Your task to perform on an android device: change alarm snooze length Image 0: 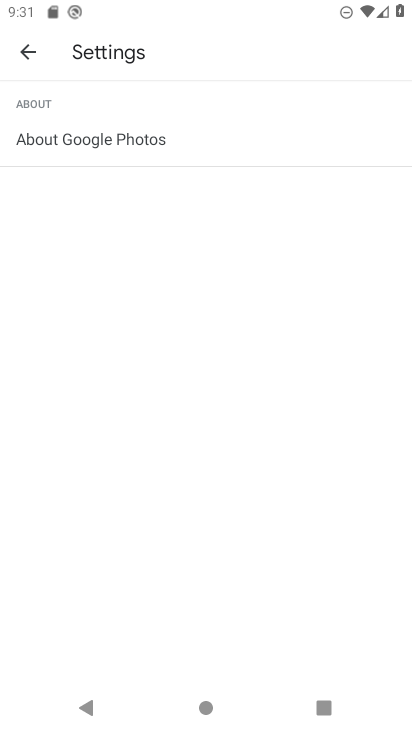
Step 0: press home button
Your task to perform on an android device: change alarm snooze length Image 1: 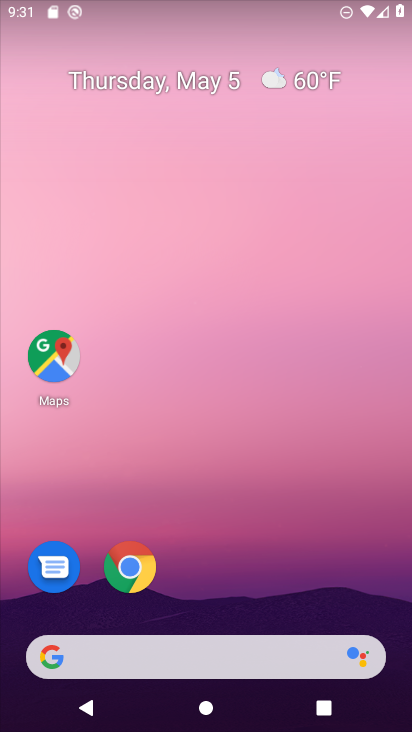
Step 1: drag from (220, 725) to (228, 73)
Your task to perform on an android device: change alarm snooze length Image 2: 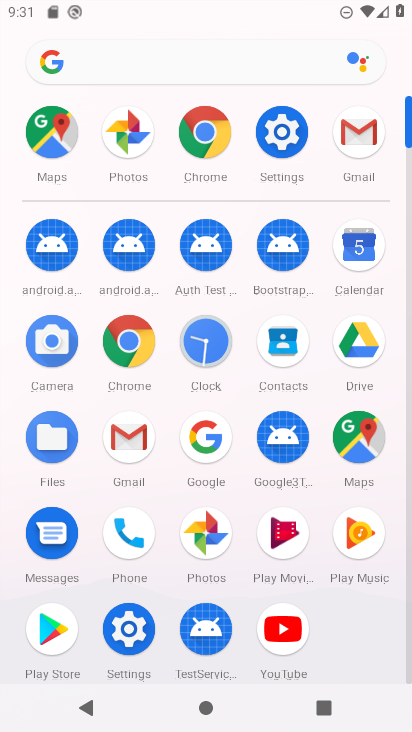
Step 2: click (200, 342)
Your task to perform on an android device: change alarm snooze length Image 3: 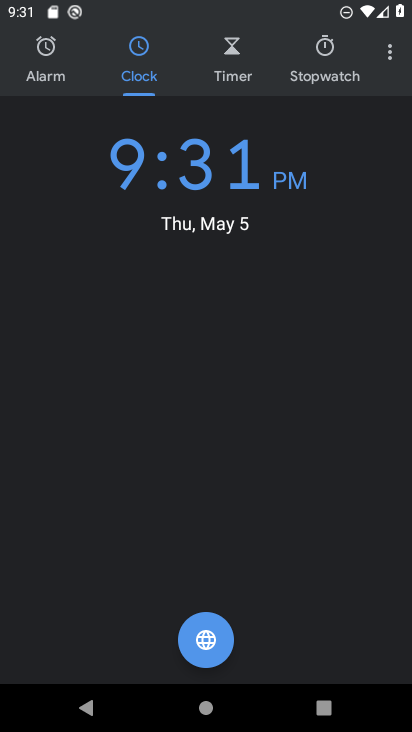
Step 3: click (388, 53)
Your task to perform on an android device: change alarm snooze length Image 4: 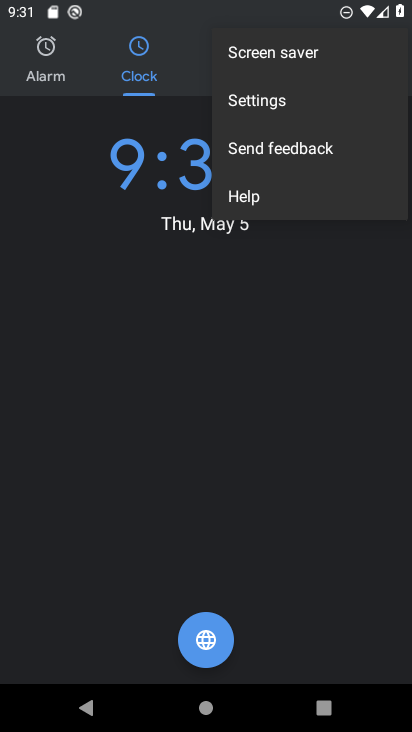
Step 4: click (265, 102)
Your task to perform on an android device: change alarm snooze length Image 5: 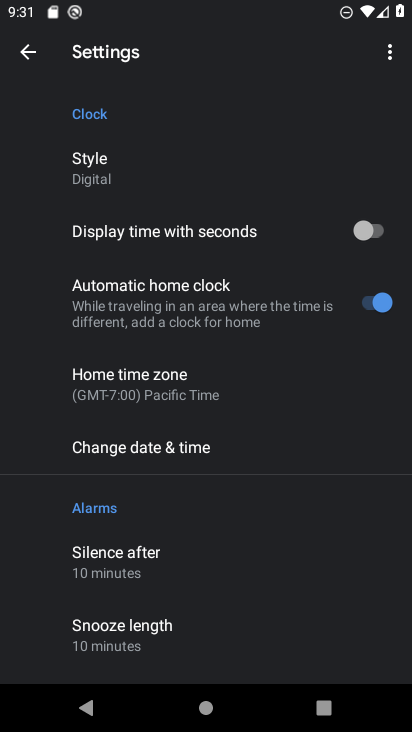
Step 5: click (102, 631)
Your task to perform on an android device: change alarm snooze length Image 6: 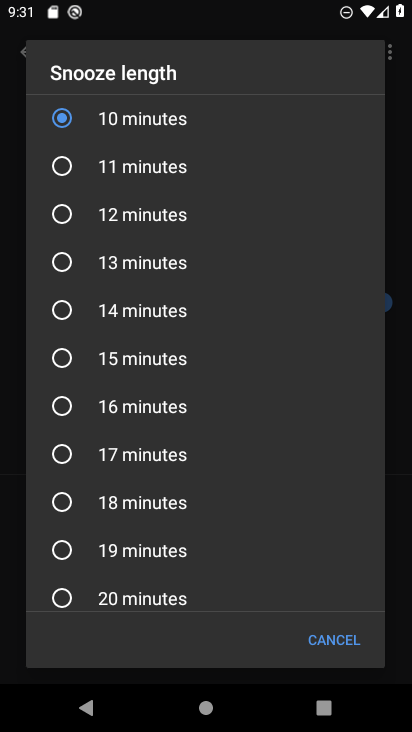
Step 6: click (61, 505)
Your task to perform on an android device: change alarm snooze length Image 7: 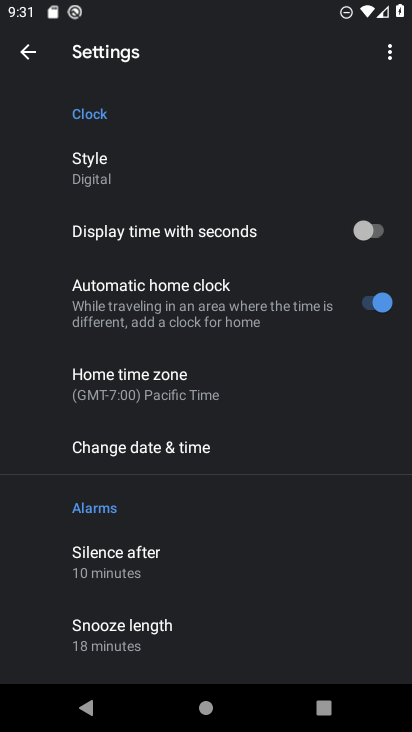
Step 7: task complete